Your task to perform on an android device: What's the news in Ecuador? Image 0: 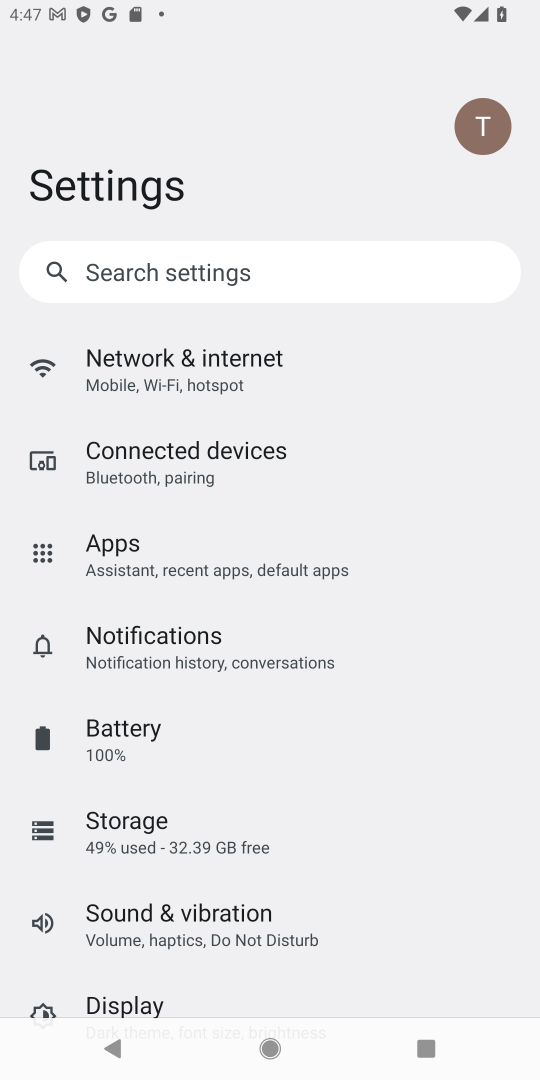
Step 0: press home button
Your task to perform on an android device: What's the news in Ecuador? Image 1: 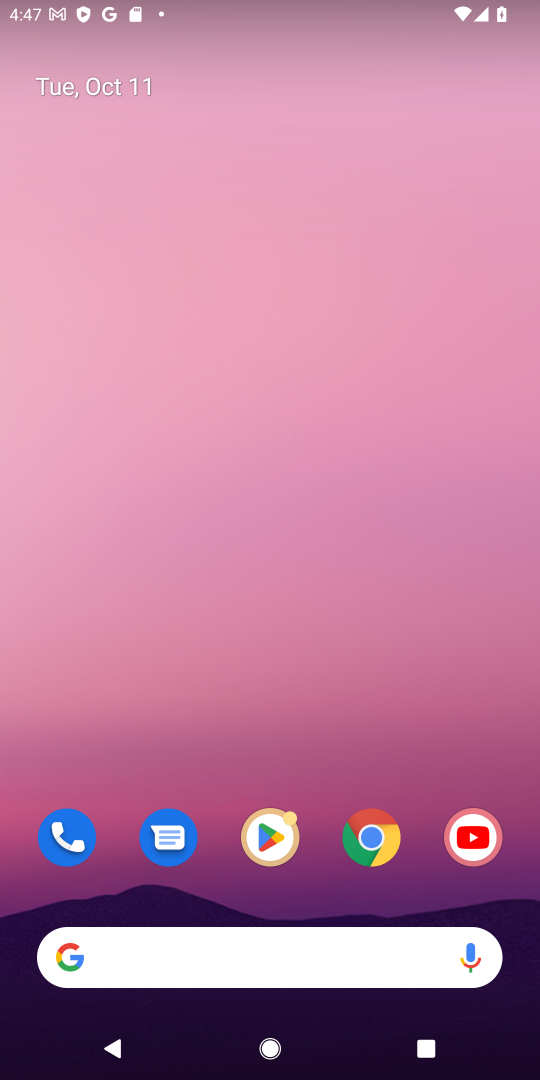
Step 1: drag from (299, 799) to (284, 0)
Your task to perform on an android device: What's the news in Ecuador? Image 2: 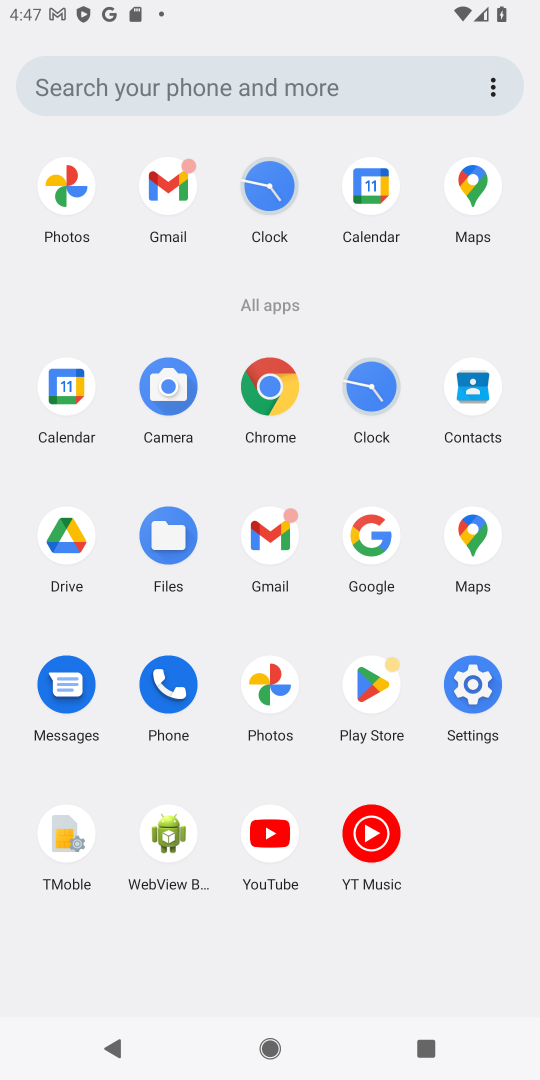
Step 2: click (277, 402)
Your task to perform on an android device: What's the news in Ecuador? Image 3: 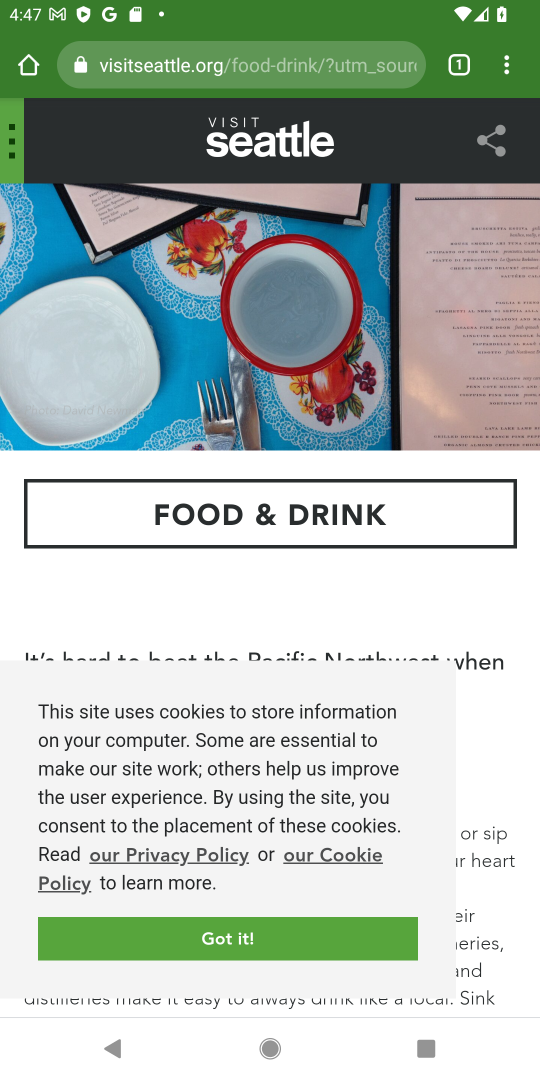
Step 3: click (207, 79)
Your task to perform on an android device: What's the news in Ecuador? Image 4: 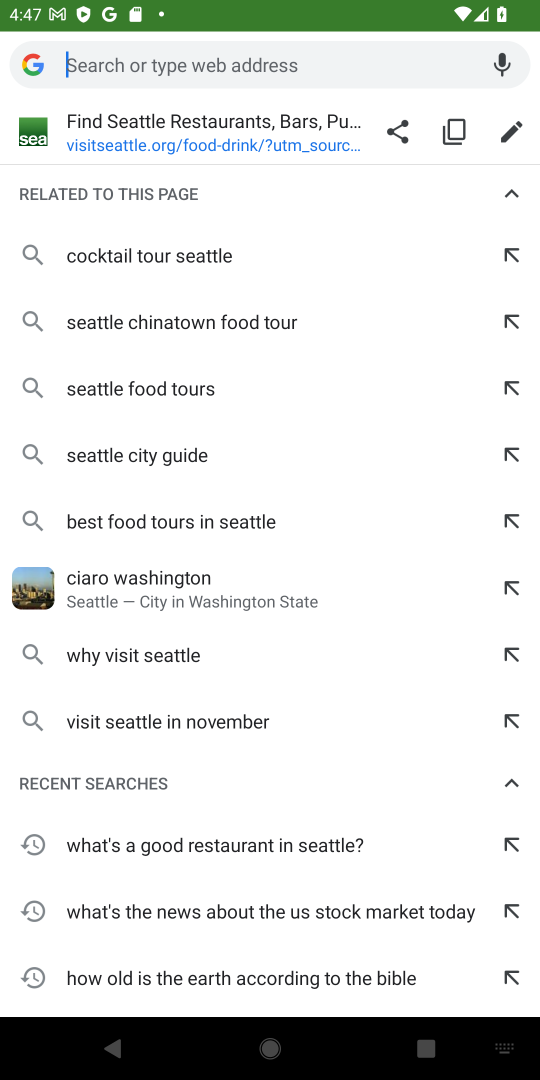
Step 4: type "What's the news in Ecuador?"
Your task to perform on an android device: What's the news in Ecuador? Image 5: 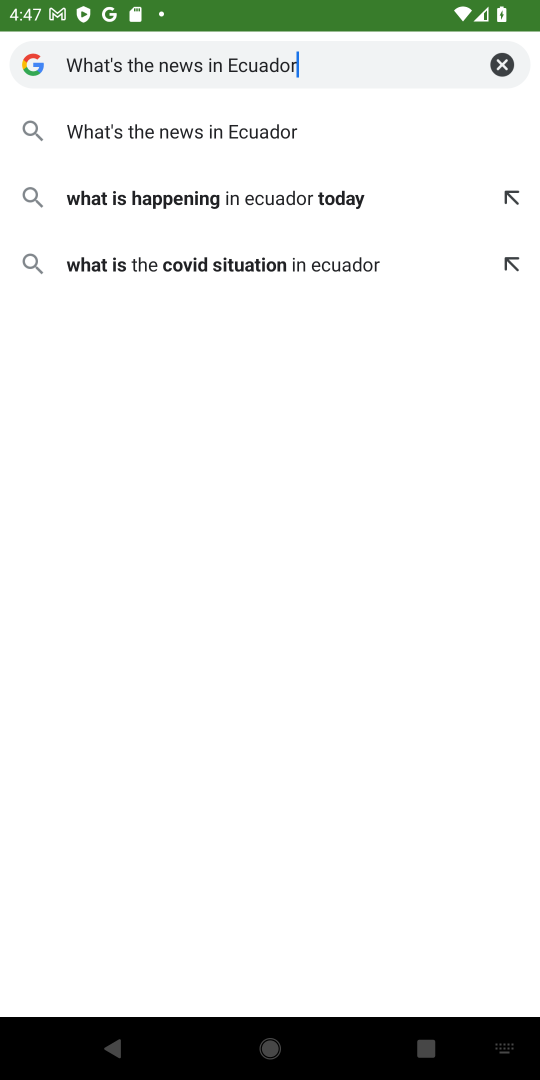
Step 5: press enter
Your task to perform on an android device: What's the news in Ecuador? Image 6: 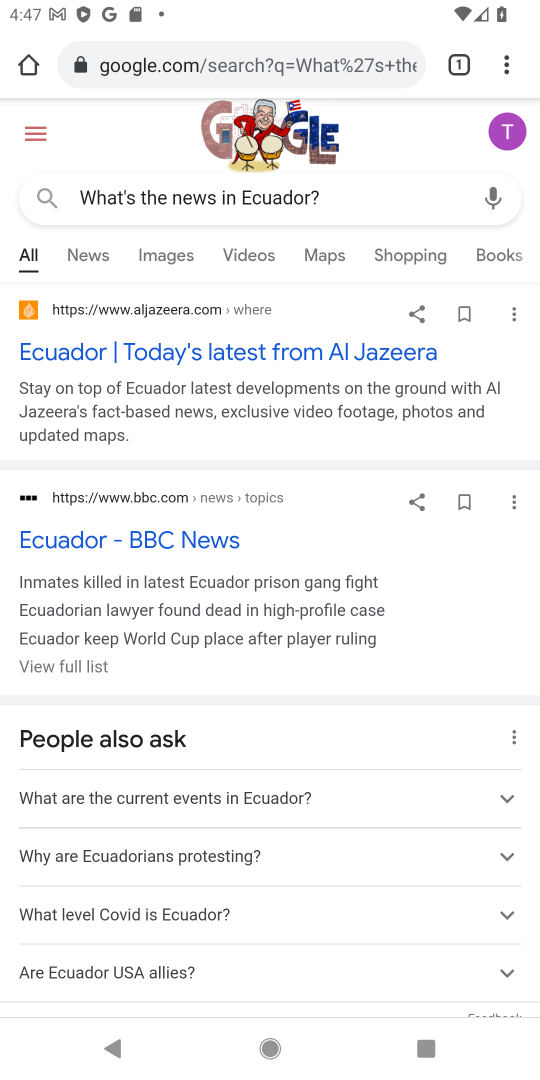
Step 6: click (189, 340)
Your task to perform on an android device: What's the news in Ecuador? Image 7: 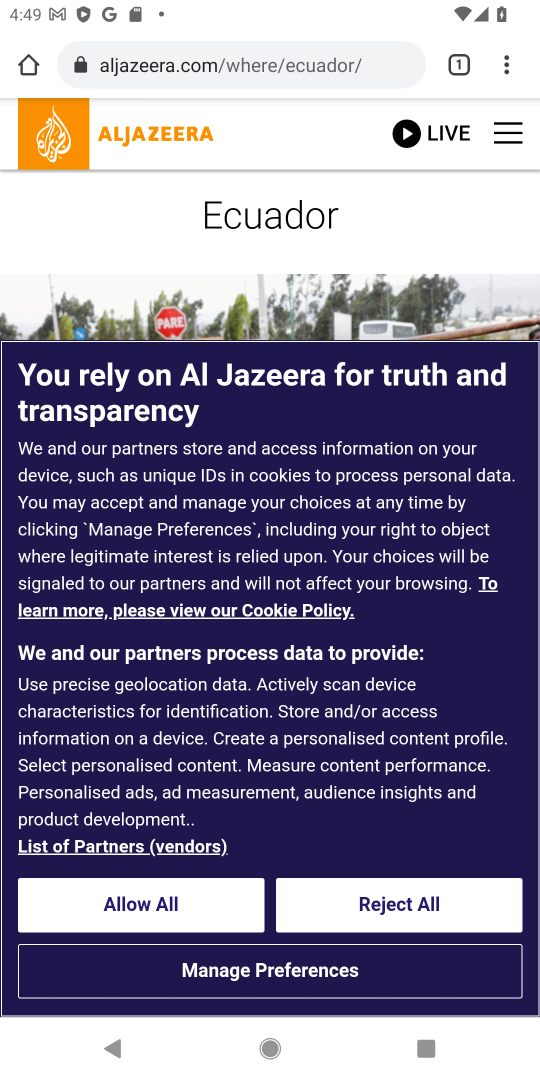
Step 7: task complete